Your task to perform on an android device: open app "ZOOM Cloud Meetings" (install if not already installed), go to login, and select forgot password Image 0: 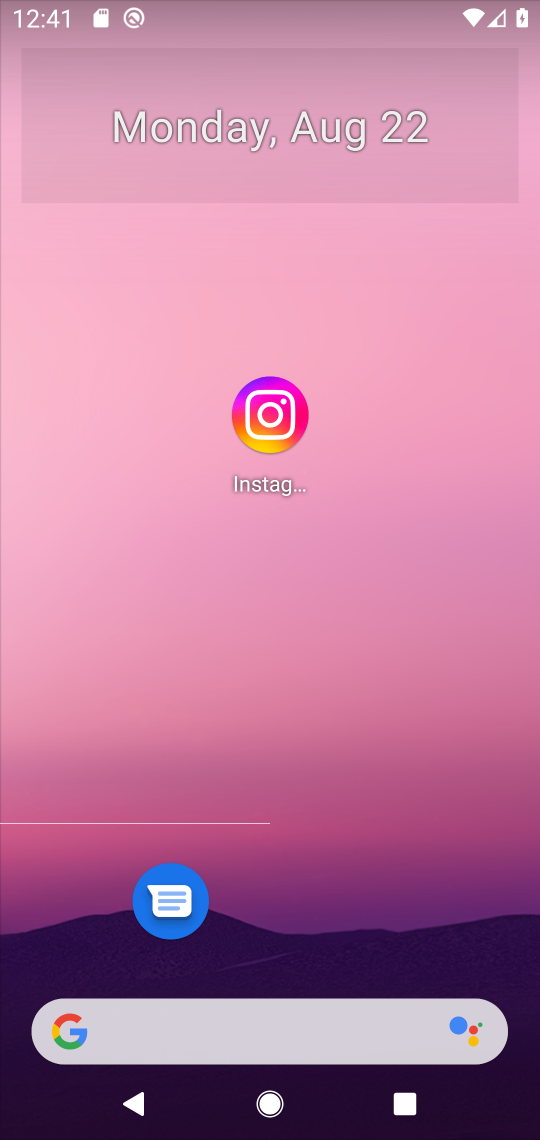
Step 0: drag from (370, 939) to (331, 58)
Your task to perform on an android device: open app "ZOOM Cloud Meetings" (install if not already installed), go to login, and select forgot password Image 1: 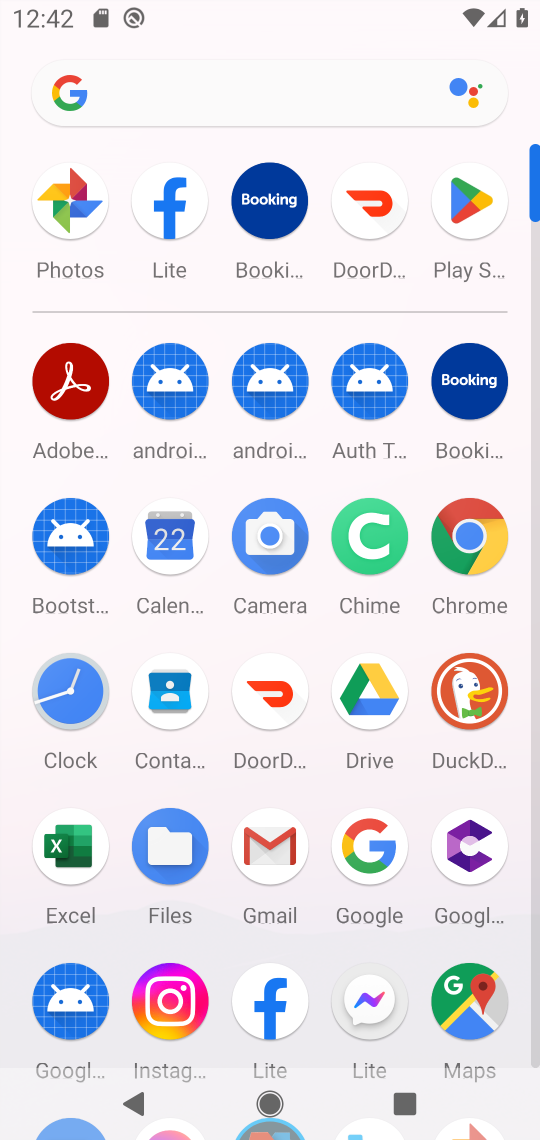
Step 1: click (481, 218)
Your task to perform on an android device: open app "ZOOM Cloud Meetings" (install if not already installed), go to login, and select forgot password Image 2: 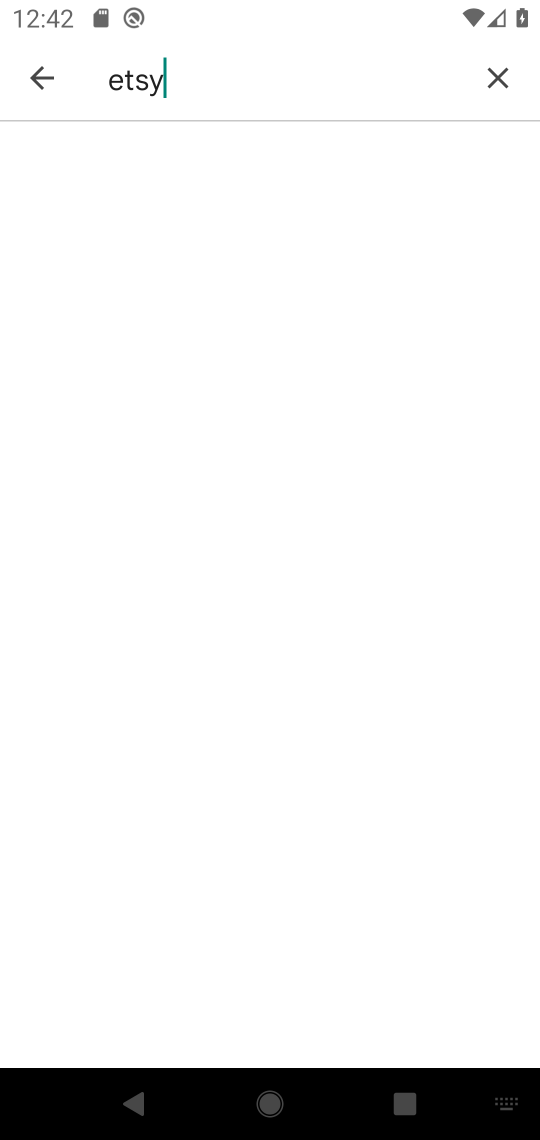
Step 2: click (496, 77)
Your task to perform on an android device: open app "ZOOM Cloud Meetings" (install if not already installed), go to login, and select forgot password Image 3: 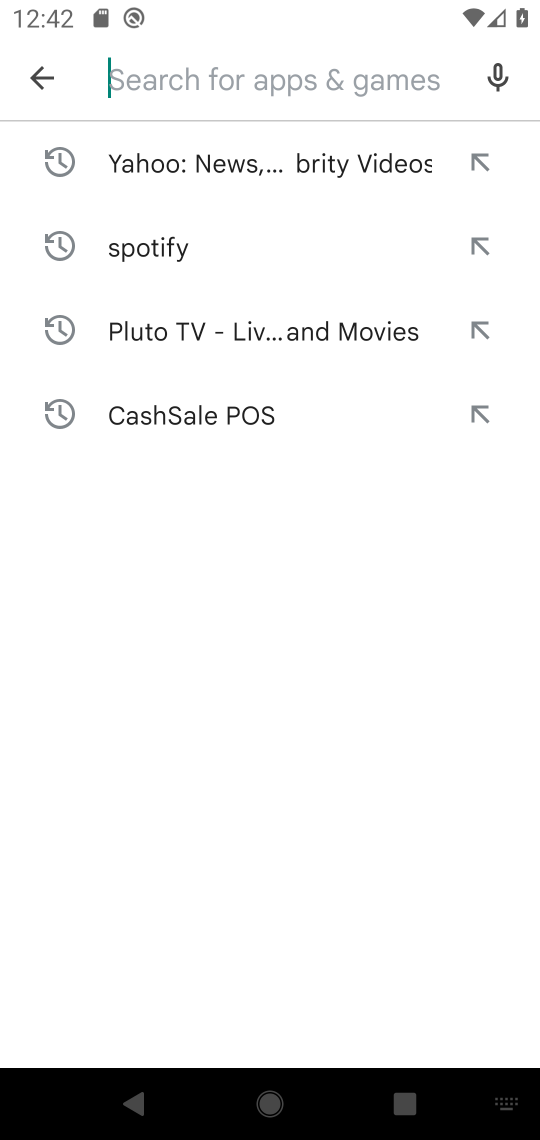
Step 3: type "zooom"
Your task to perform on an android device: open app "ZOOM Cloud Meetings" (install if not already installed), go to login, and select forgot password Image 4: 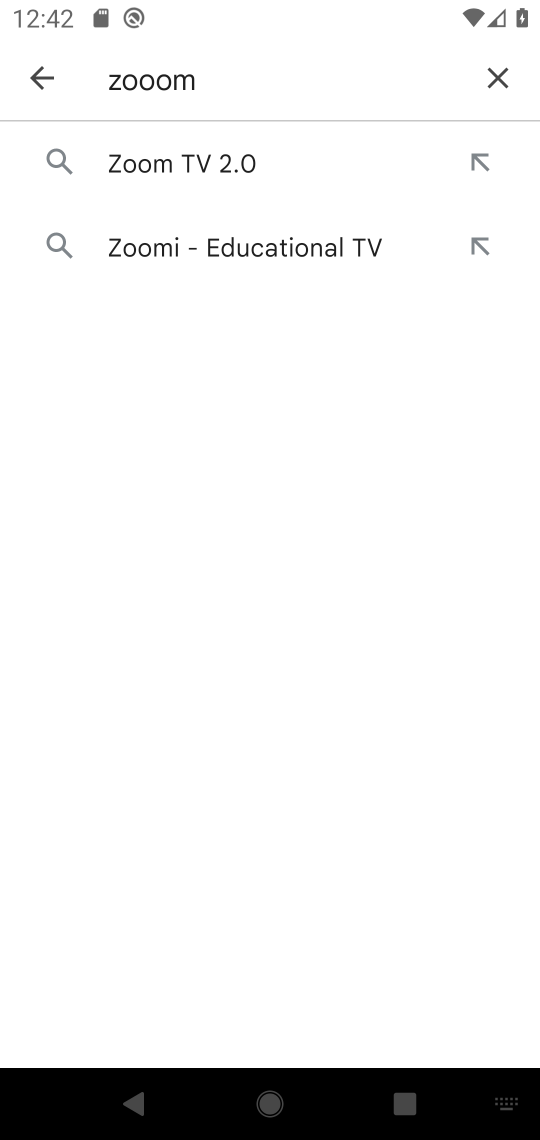
Step 4: click (480, 82)
Your task to perform on an android device: open app "ZOOM Cloud Meetings" (install if not already installed), go to login, and select forgot password Image 5: 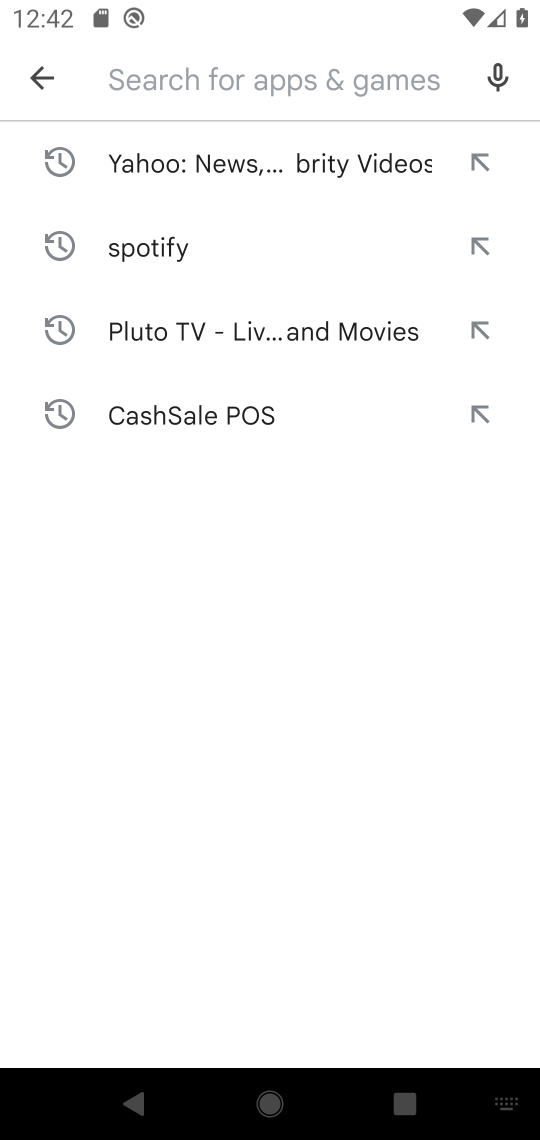
Step 5: type "zoom cloud"
Your task to perform on an android device: open app "ZOOM Cloud Meetings" (install if not already installed), go to login, and select forgot password Image 6: 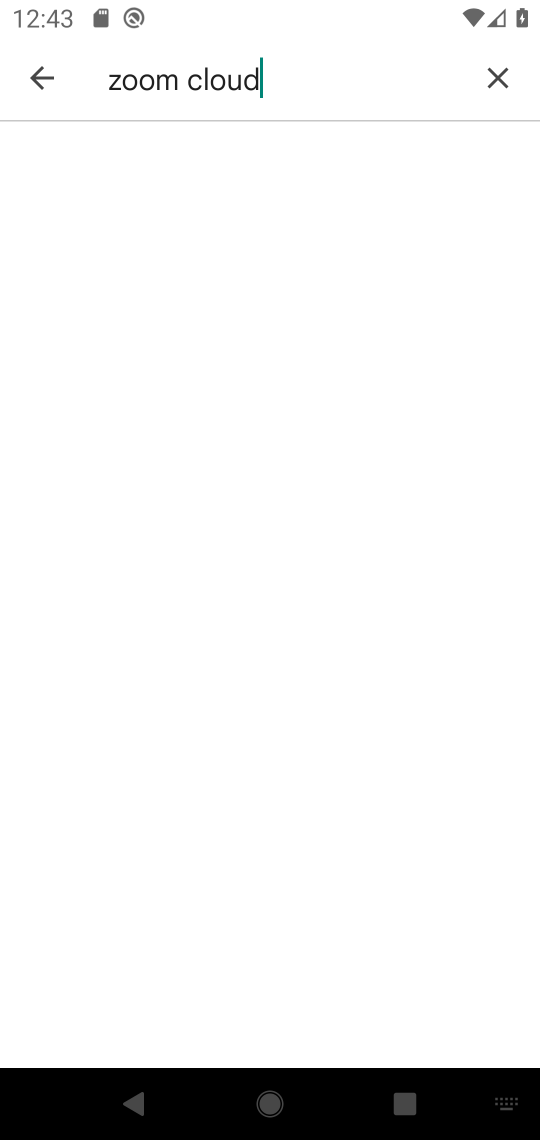
Step 6: task complete